Your task to perform on an android device: Open maps Image 0: 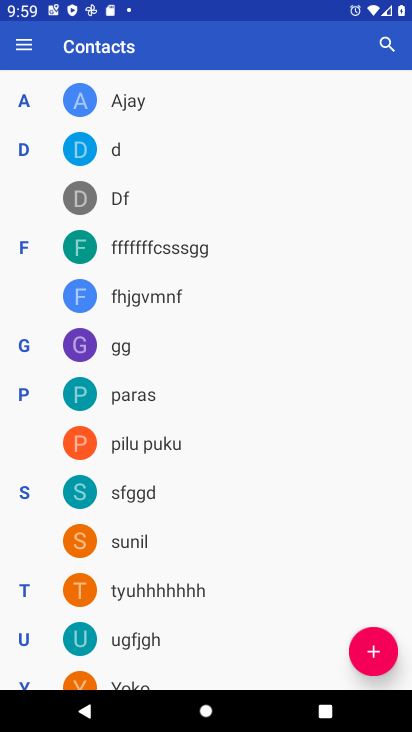
Step 0: press home button
Your task to perform on an android device: Open maps Image 1: 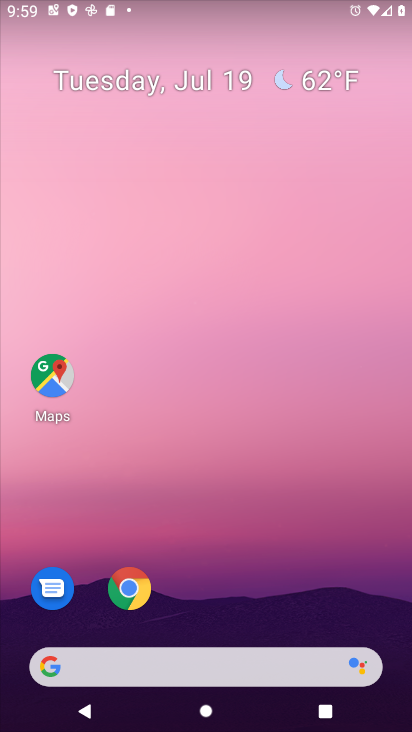
Step 1: drag from (285, 537) to (221, 138)
Your task to perform on an android device: Open maps Image 2: 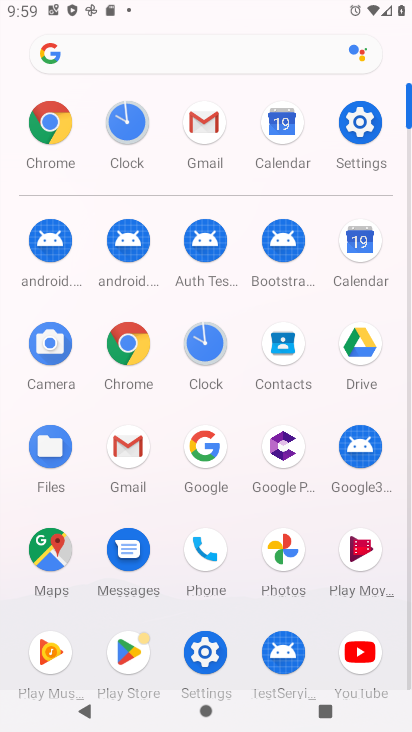
Step 2: click (48, 558)
Your task to perform on an android device: Open maps Image 3: 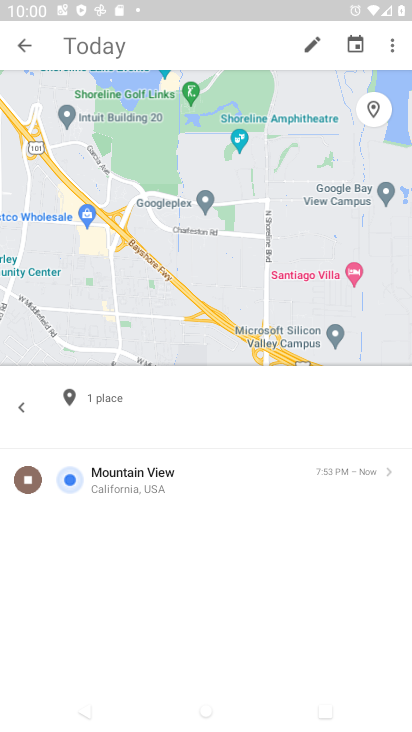
Step 3: task complete